Your task to perform on an android device: Go to ESPN.com Image 0: 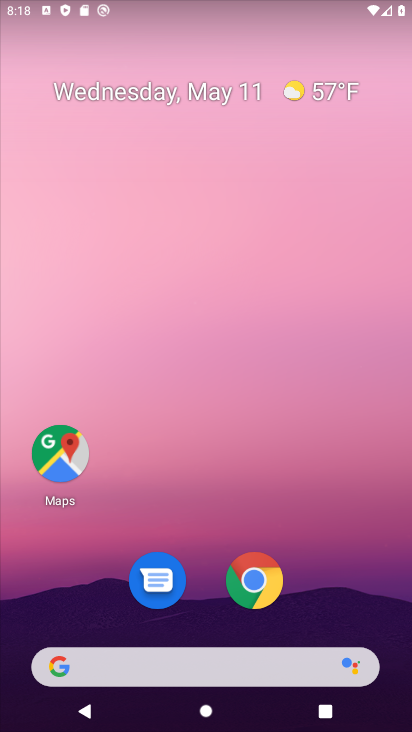
Step 0: click (185, 665)
Your task to perform on an android device: Go to ESPN.com Image 1: 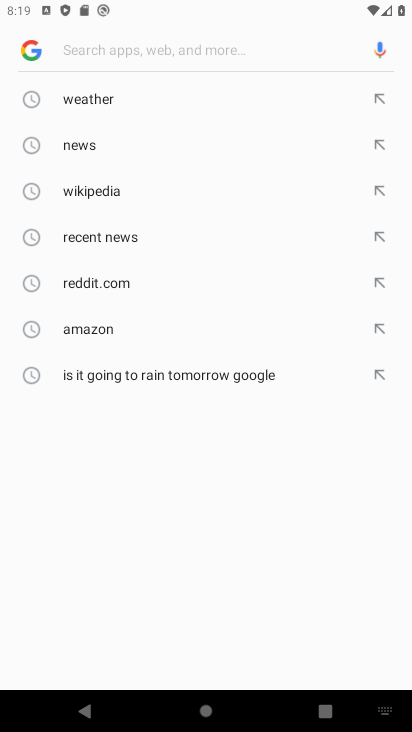
Step 1: type "espn.com"
Your task to perform on an android device: Go to ESPN.com Image 2: 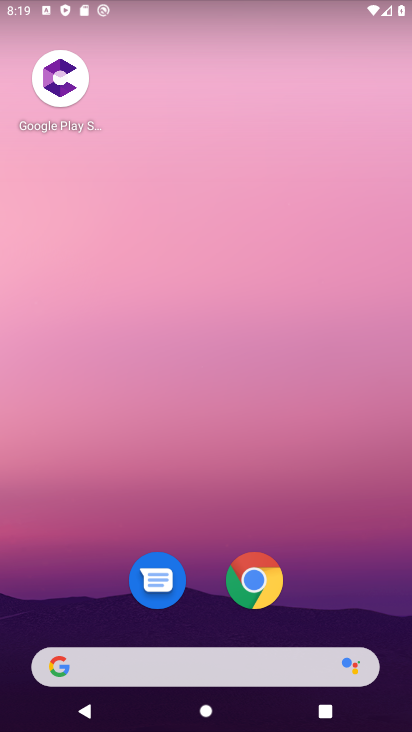
Step 2: click (232, 663)
Your task to perform on an android device: Go to ESPN.com Image 3: 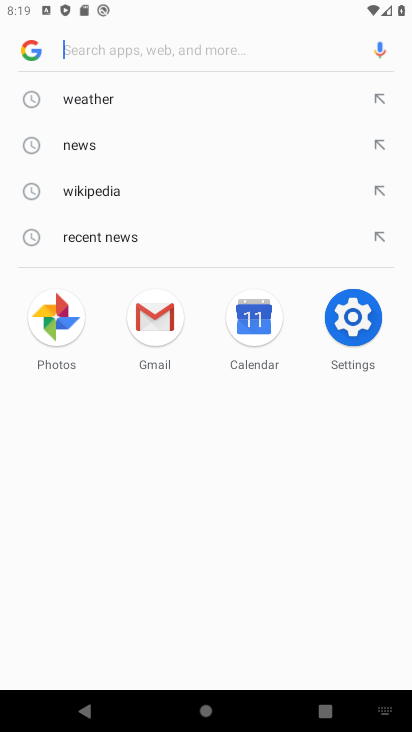
Step 3: type "espn.com"
Your task to perform on an android device: Go to ESPN.com Image 4: 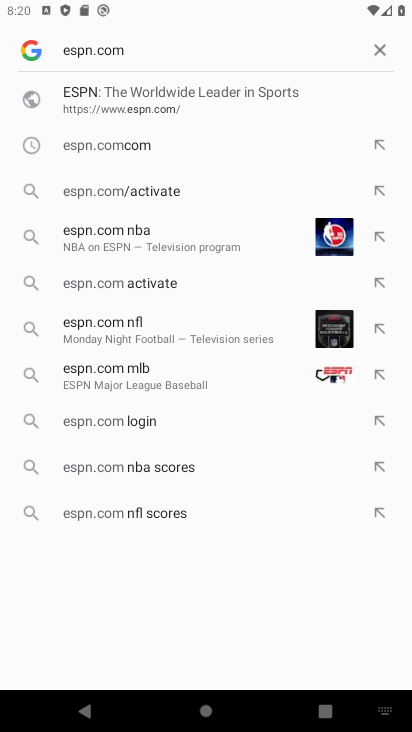
Step 4: click (194, 108)
Your task to perform on an android device: Go to ESPN.com Image 5: 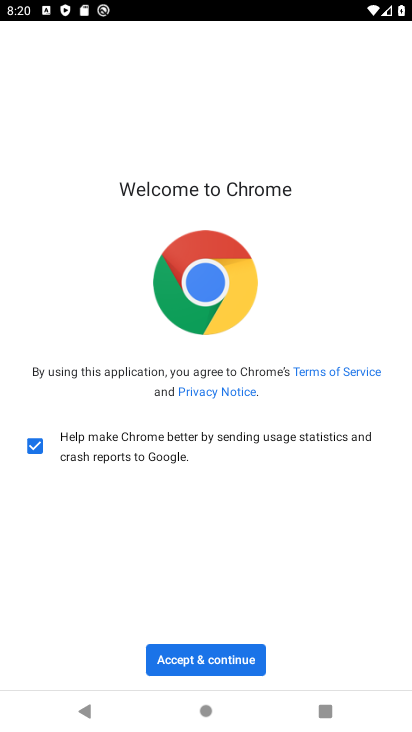
Step 5: click (177, 654)
Your task to perform on an android device: Go to ESPN.com Image 6: 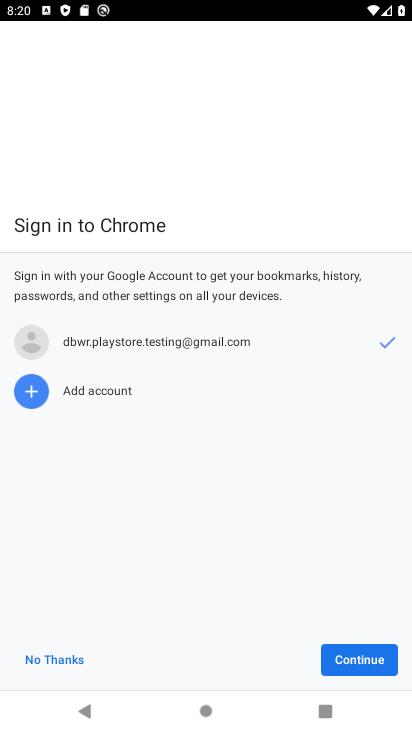
Step 6: click (389, 663)
Your task to perform on an android device: Go to ESPN.com Image 7: 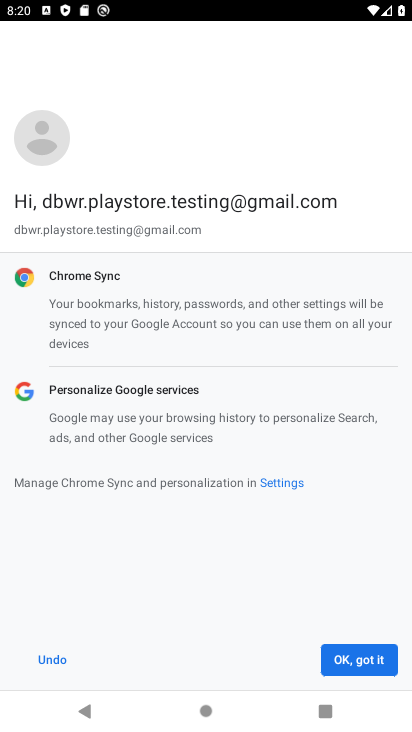
Step 7: click (352, 663)
Your task to perform on an android device: Go to ESPN.com Image 8: 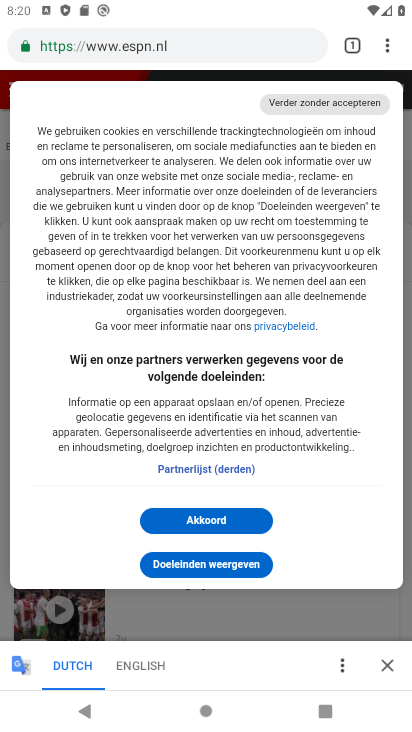
Step 8: task complete